Your task to perform on an android device: What's a good restaurant in Dallas? Image 0: 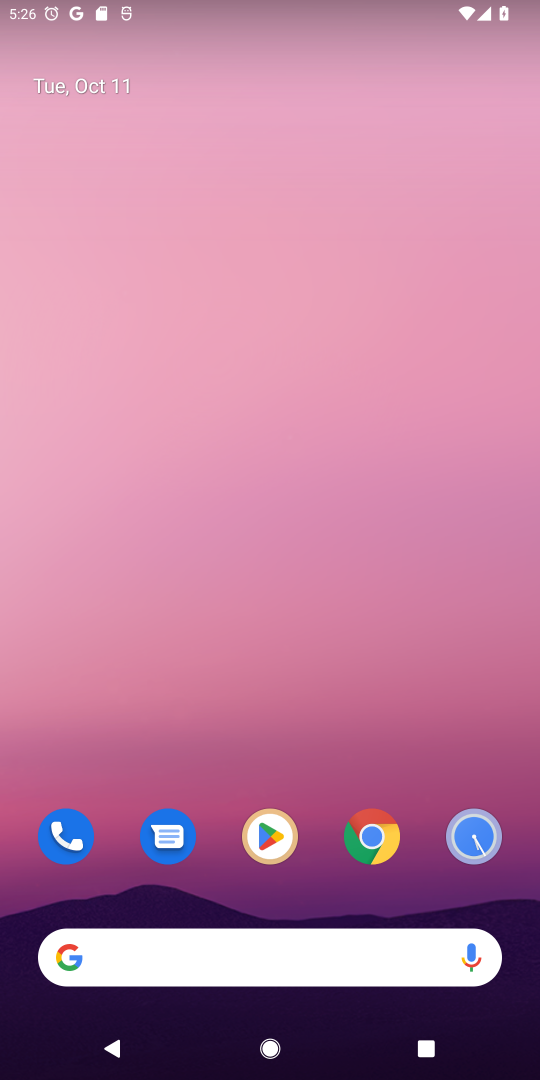
Step 0: click (207, 973)
Your task to perform on an android device: What's a good restaurant in Dallas? Image 1: 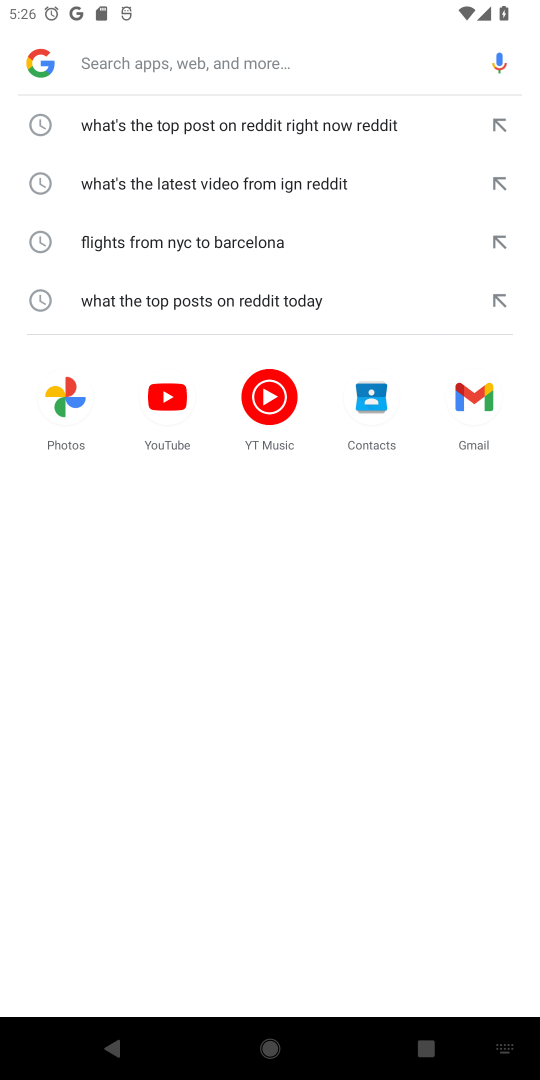
Step 1: type "What's a good restaurant in Dallas?"
Your task to perform on an android device: What's a good restaurant in Dallas? Image 2: 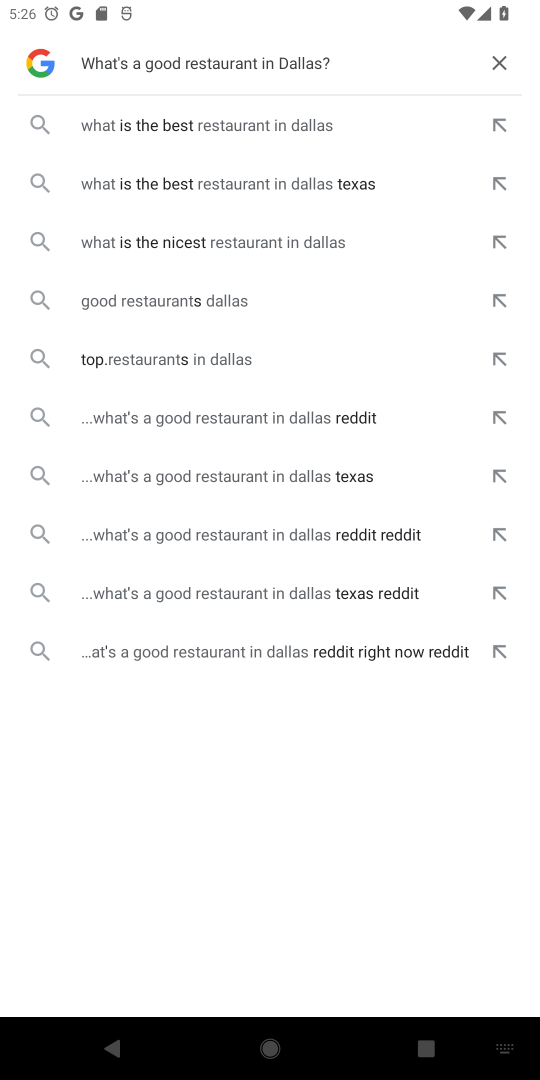
Step 2: click (296, 142)
Your task to perform on an android device: What's a good restaurant in Dallas? Image 3: 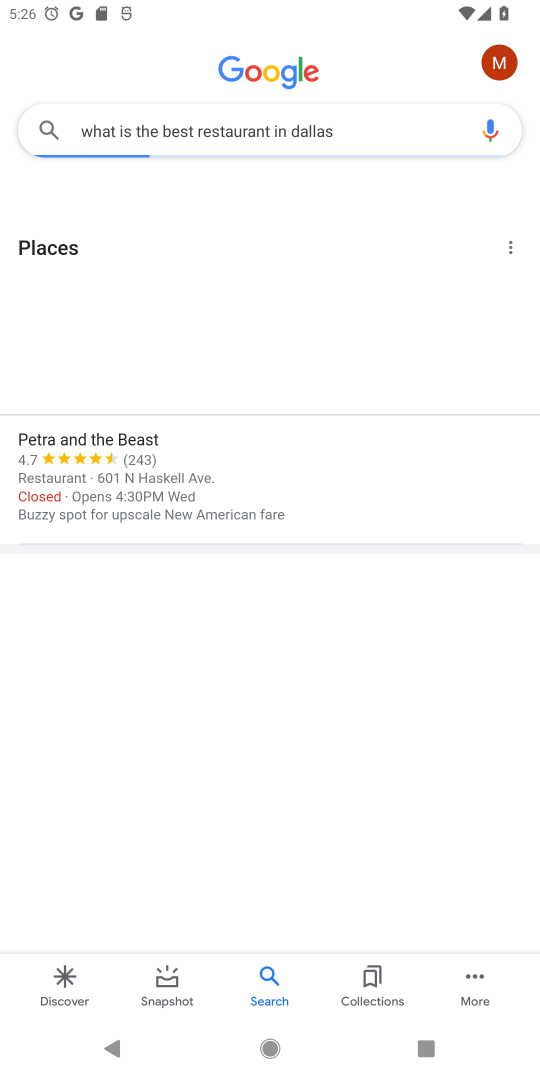
Step 3: task complete